Your task to perform on an android device: What's the weather? Image 0: 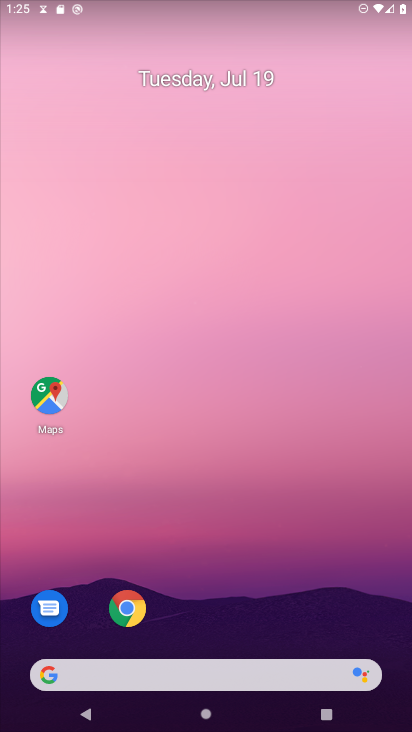
Step 0: drag from (272, 652) to (281, 35)
Your task to perform on an android device: What's the weather? Image 1: 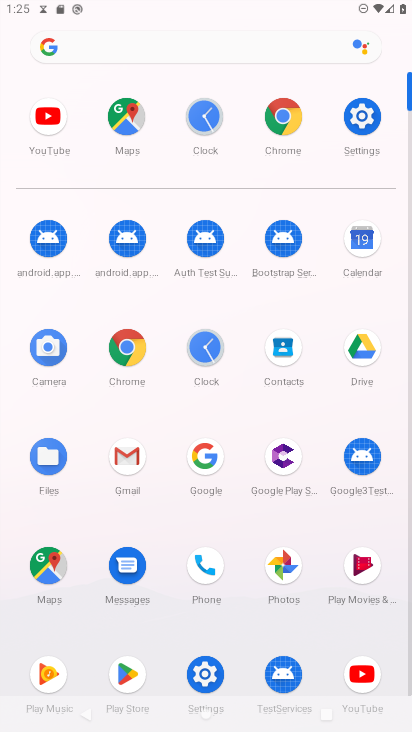
Step 1: click (135, 348)
Your task to perform on an android device: What's the weather? Image 2: 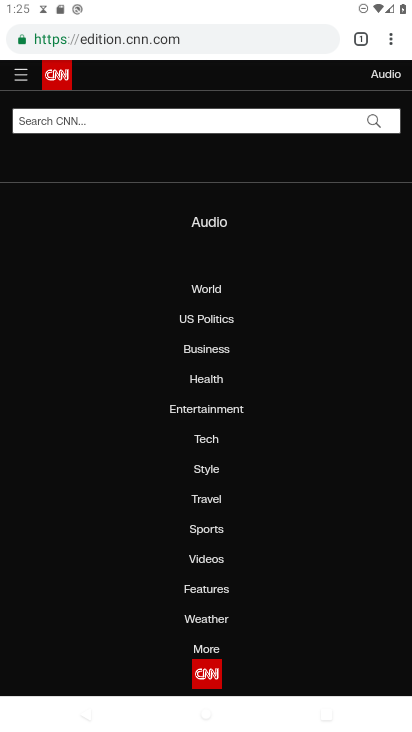
Step 2: click (191, 34)
Your task to perform on an android device: What's the weather? Image 3: 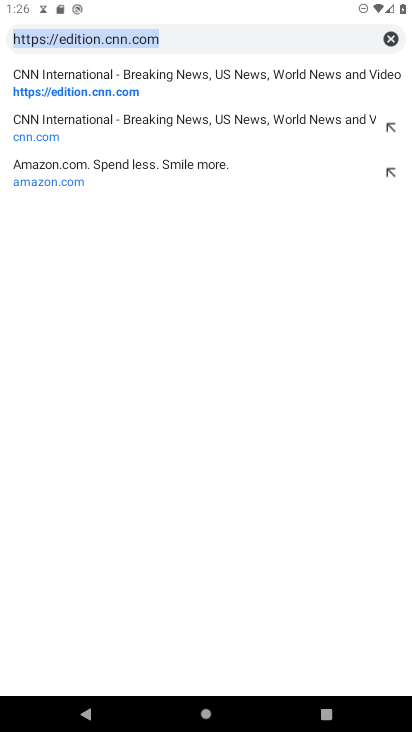
Step 3: type "whats the weather"
Your task to perform on an android device: What's the weather? Image 4: 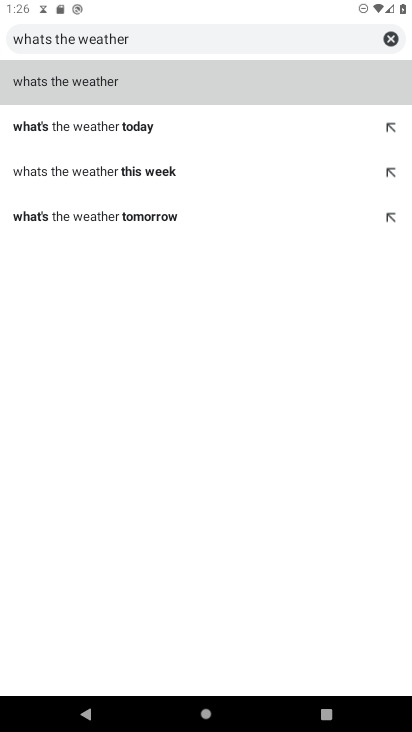
Step 4: click (38, 84)
Your task to perform on an android device: What's the weather? Image 5: 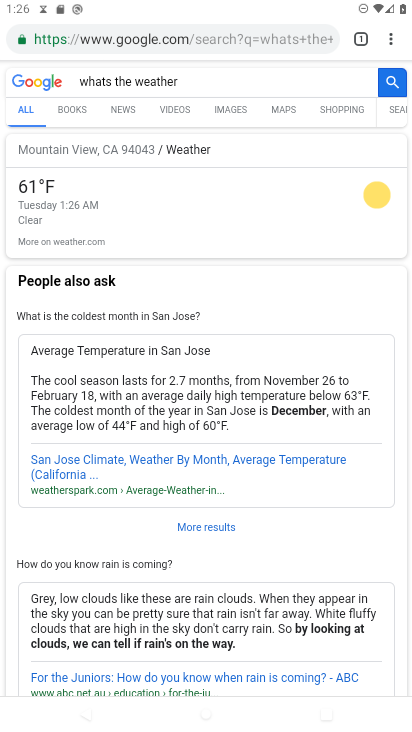
Step 5: task complete